Your task to perform on an android device: Open my contact list Image 0: 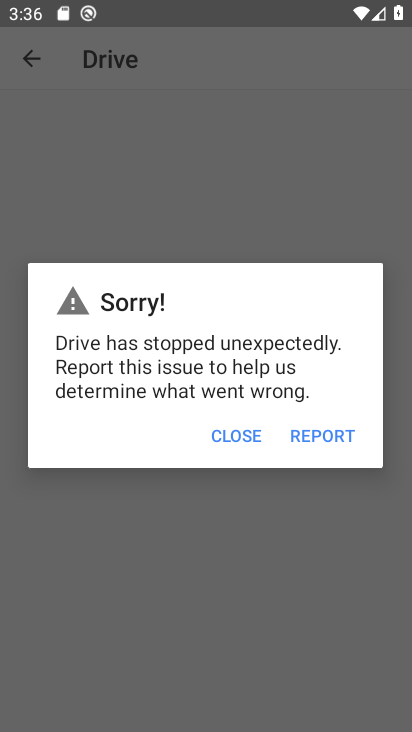
Step 0: press home button
Your task to perform on an android device: Open my contact list Image 1: 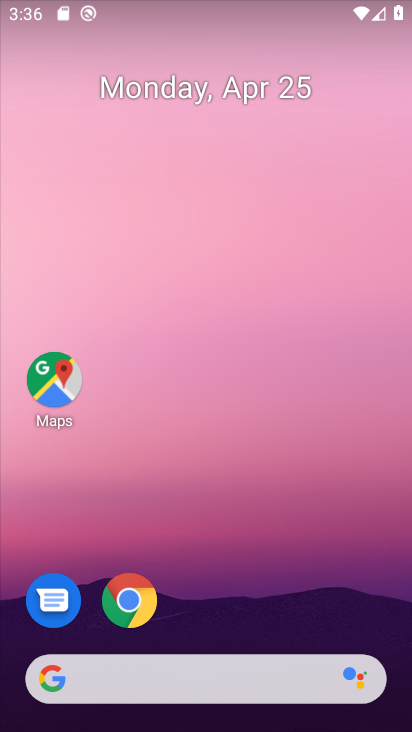
Step 1: drag from (221, 492) to (262, 89)
Your task to perform on an android device: Open my contact list Image 2: 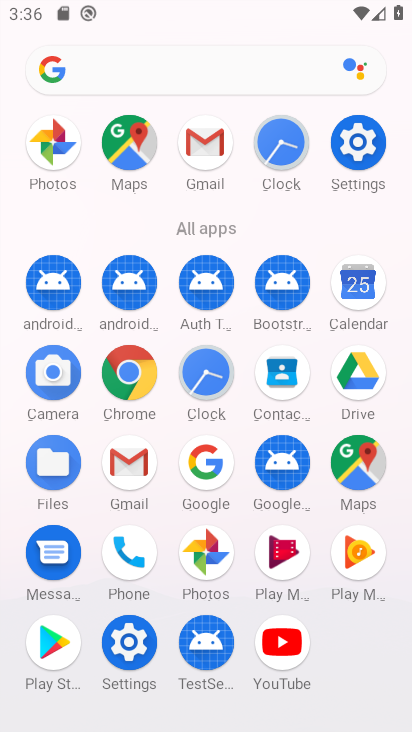
Step 2: click (276, 390)
Your task to perform on an android device: Open my contact list Image 3: 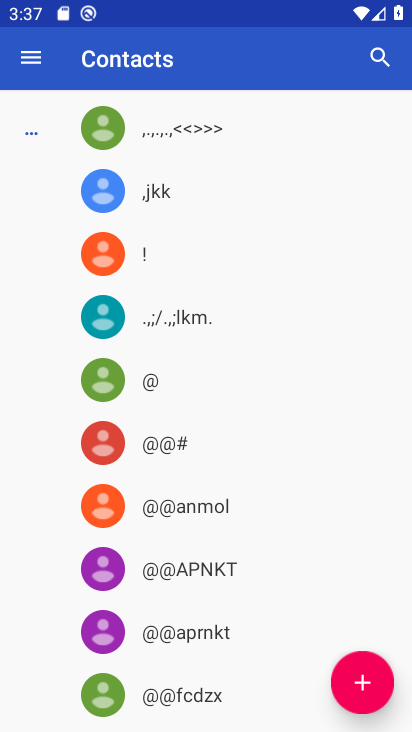
Step 3: task complete